Your task to perform on an android device: toggle sleep mode Image 0: 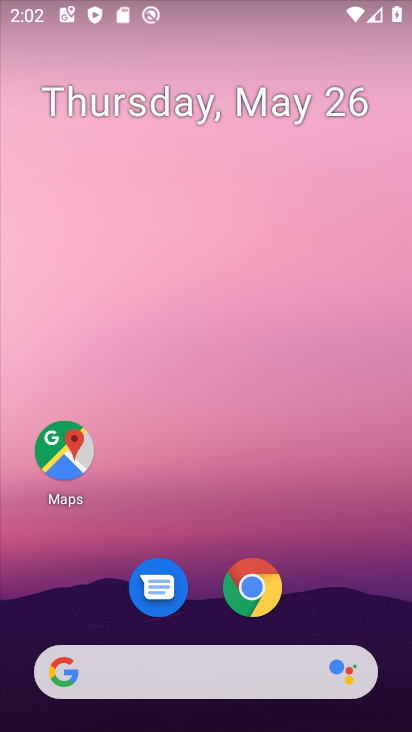
Step 0: drag from (341, 550) to (372, 122)
Your task to perform on an android device: toggle sleep mode Image 1: 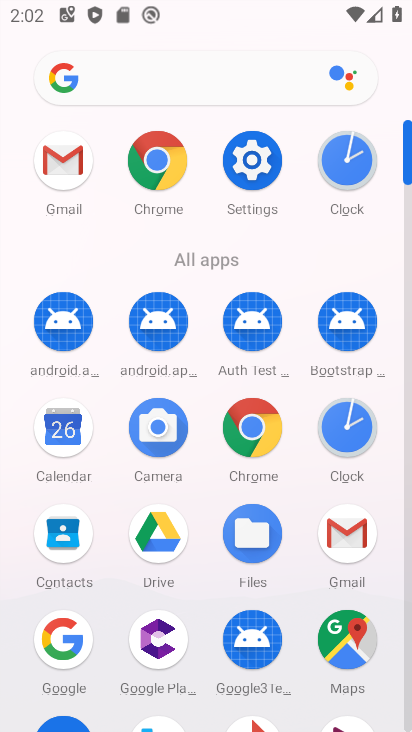
Step 1: click (247, 172)
Your task to perform on an android device: toggle sleep mode Image 2: 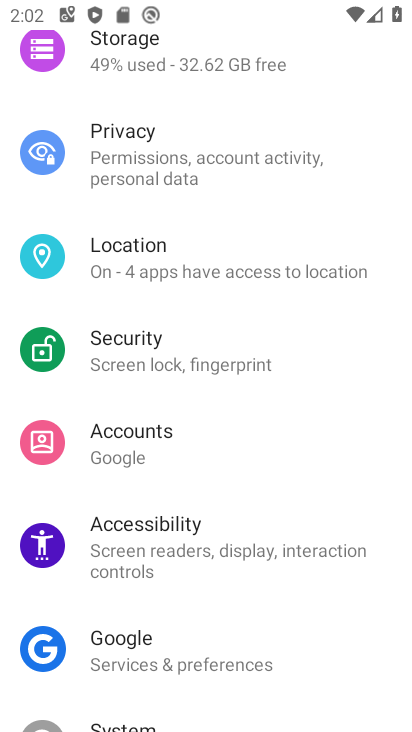
Step 2: drag from (218, 211) to (182, 729)
Your task to perform on an android device: toggle sleep mode Image 3: 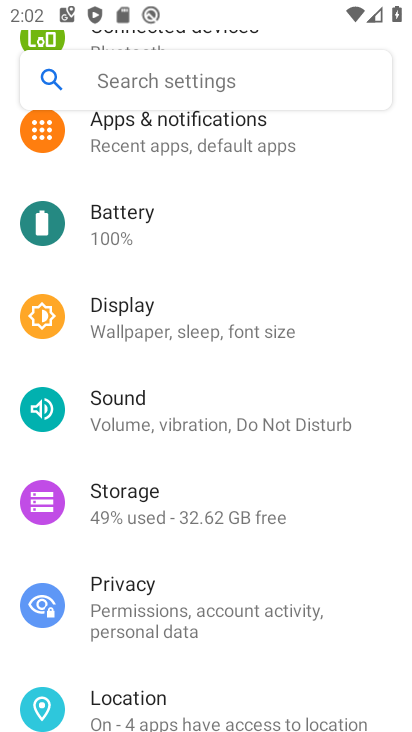
Step 3: drag from (226, 198) to (295, 659)
Your task to perform on an android device: toggle sleep mode Image 4: 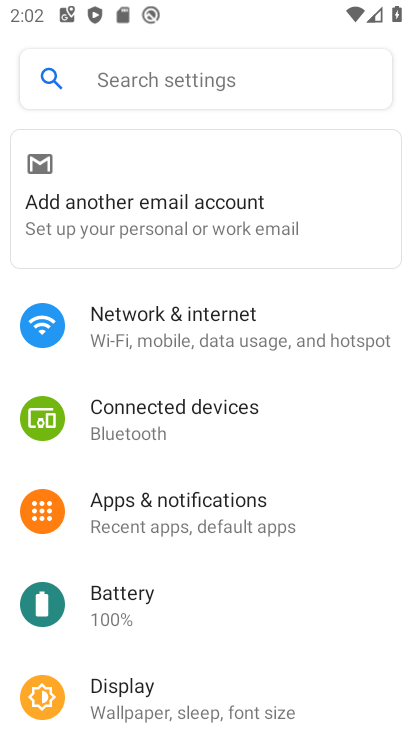
Step 4: click (225, 324)
Your task to perform on an android device: toggle sleep mode Image 5: 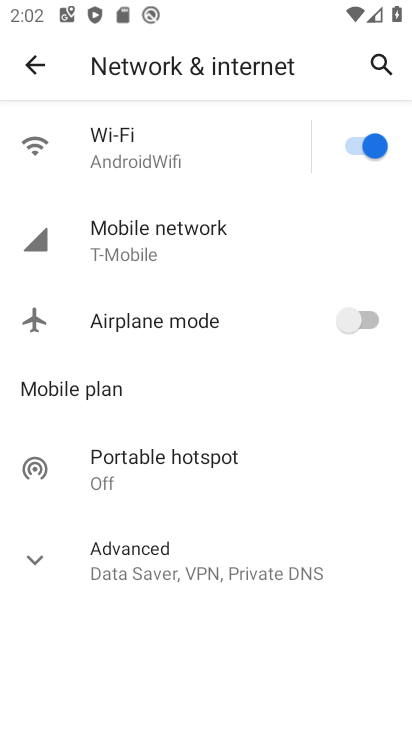
Step 5: click (169, 234)
Your task to perform on an android device: toggle sleep mode Image 6: 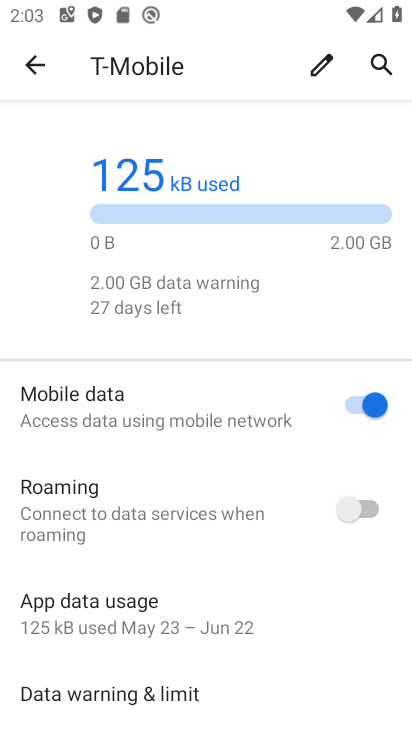
Step 6: click (34, 66)
Your task to perform on an android device: toggle sleep mode Image 7: 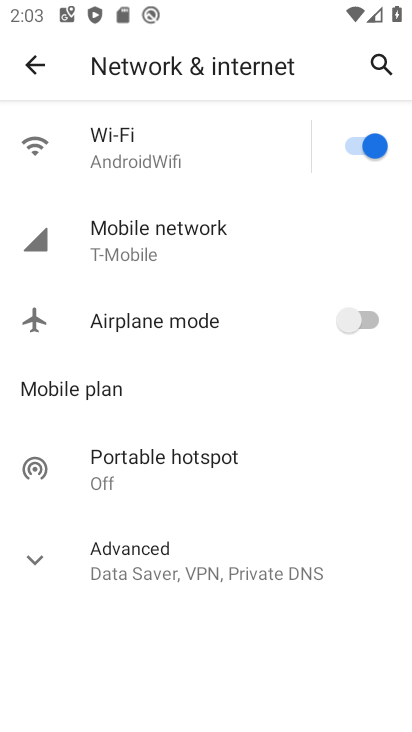
Step 7: click (32, 62)
Your task to perform on an android device: toggle sleep mode Image 8: 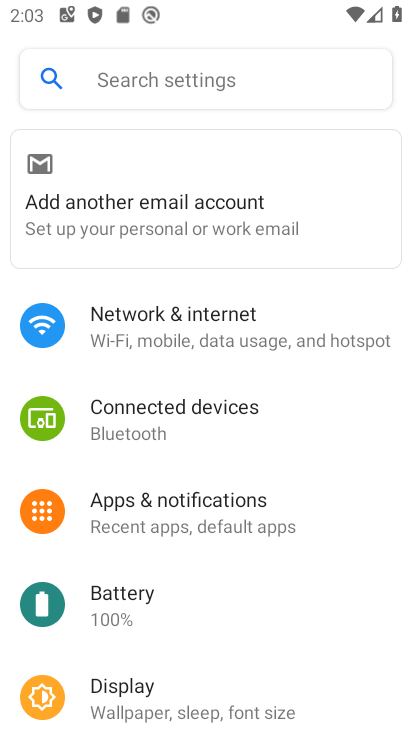
Step 8: click (188, 694)
Your task to perform on an android device: toggle sleep mode Image 9: 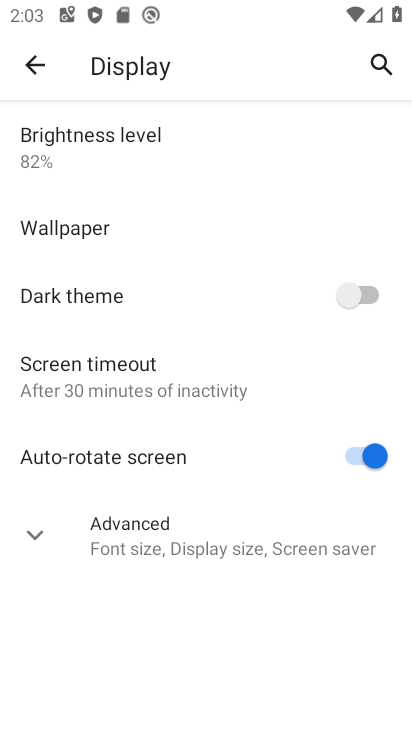
Step 9: click (129, 370)
Your task to perform on an android device: toggle sleep mode Image 10: 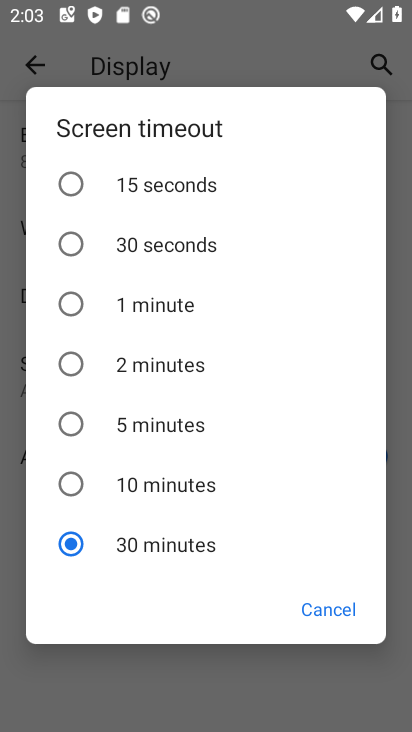
Step 10: click (188, 483)
Your task to perform on an android device: toggle sleep mode Image 11: 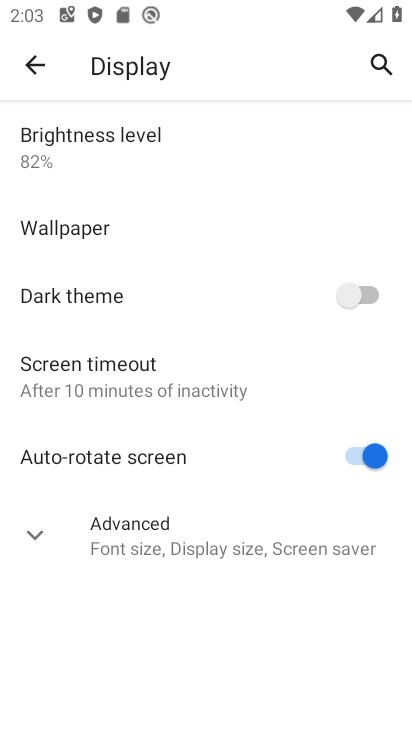
Step 11: task complete